Your task to perform on an android device: open app "Mercado Libre" (install if not already installed) and enter user name: "tolerating@yahoo.com" and password: "Kepler" Image 0: 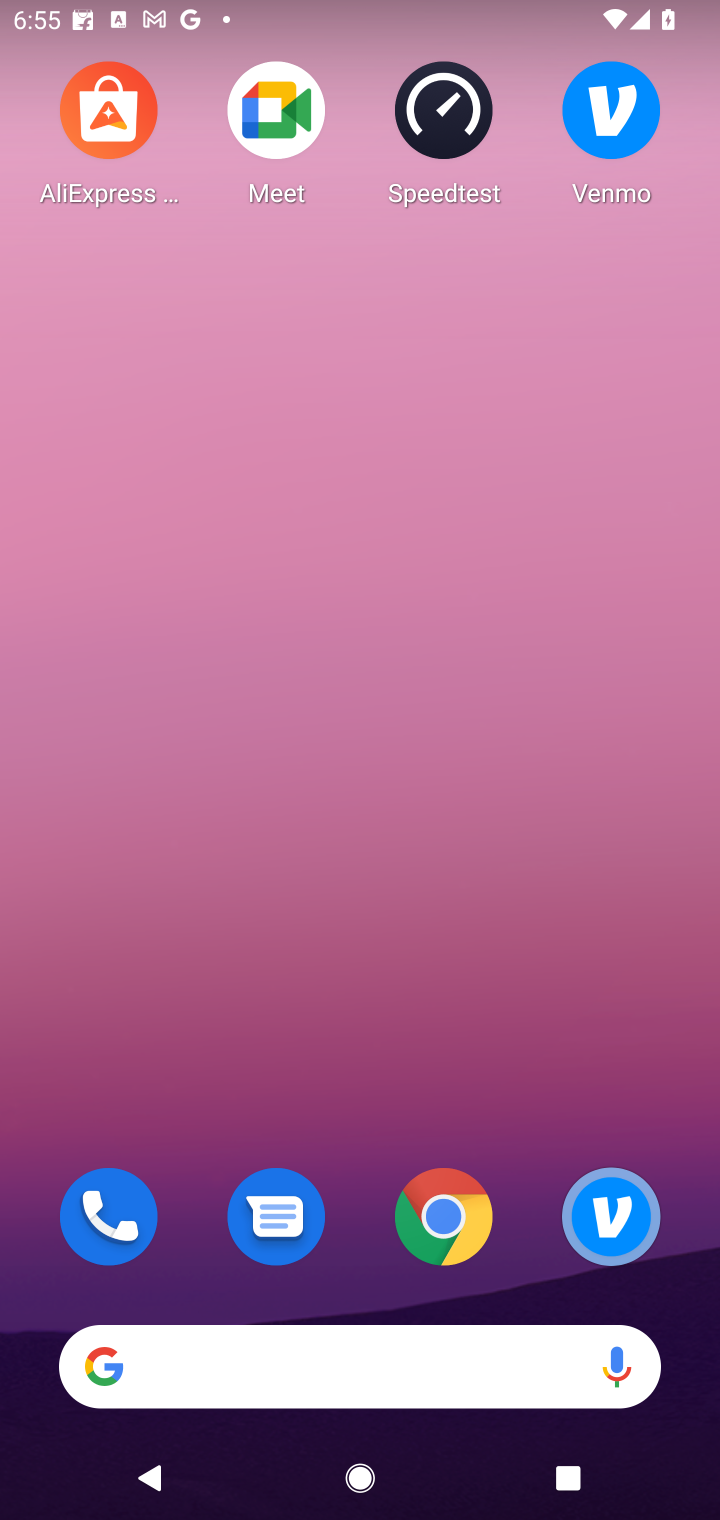
Step 0: drag from (323, 1057) to (380, 293)
Your task to perform on an android device: open app "Mercado Libre" (install if not already installed) and enter user name: "tolerating@yahoo.com" and password: "Kepler" Image 1: 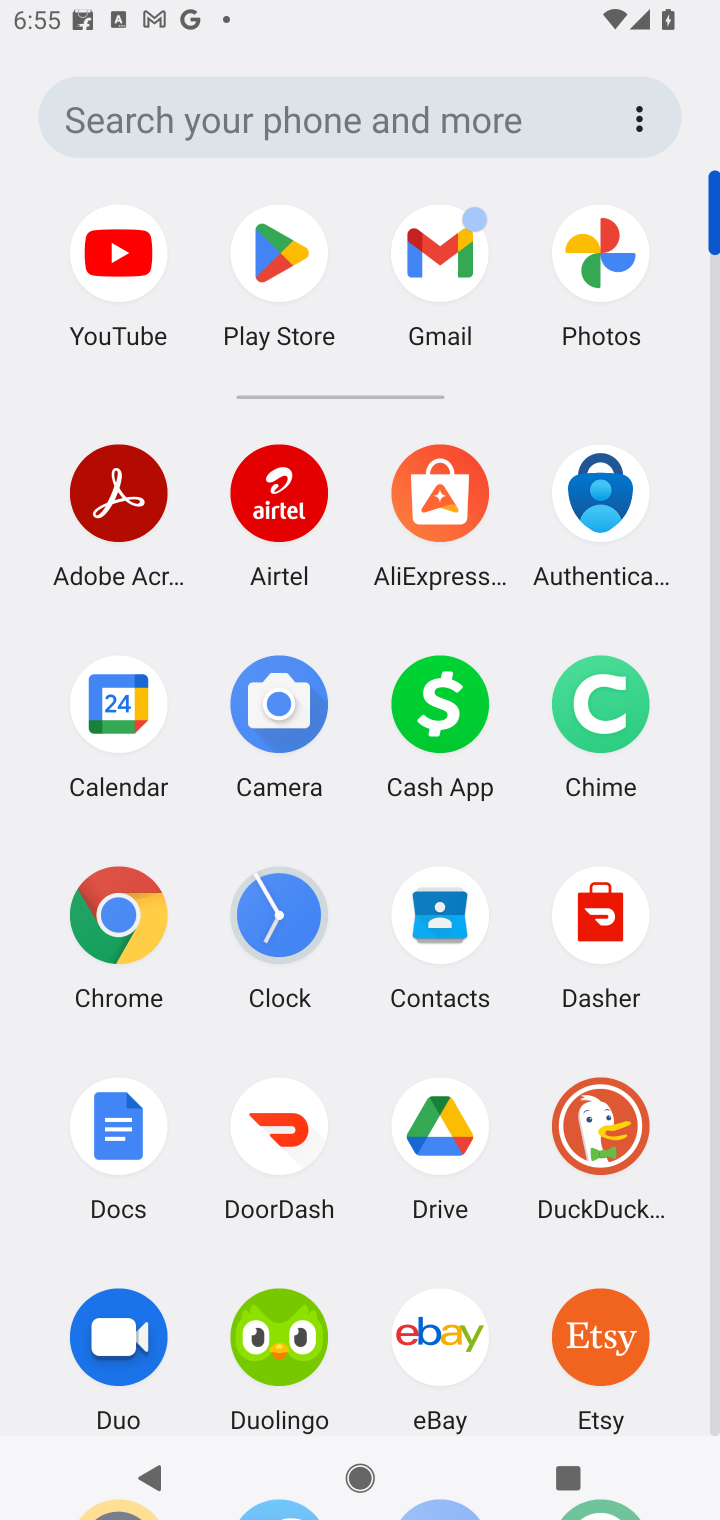
Step 1: click (272, 245)
Your task to perform on an android device: open app "Mercado Libre" (install if not already installed) and enter user name: "tolerating@yahoo.com" and password: "Kepler" Image 2: 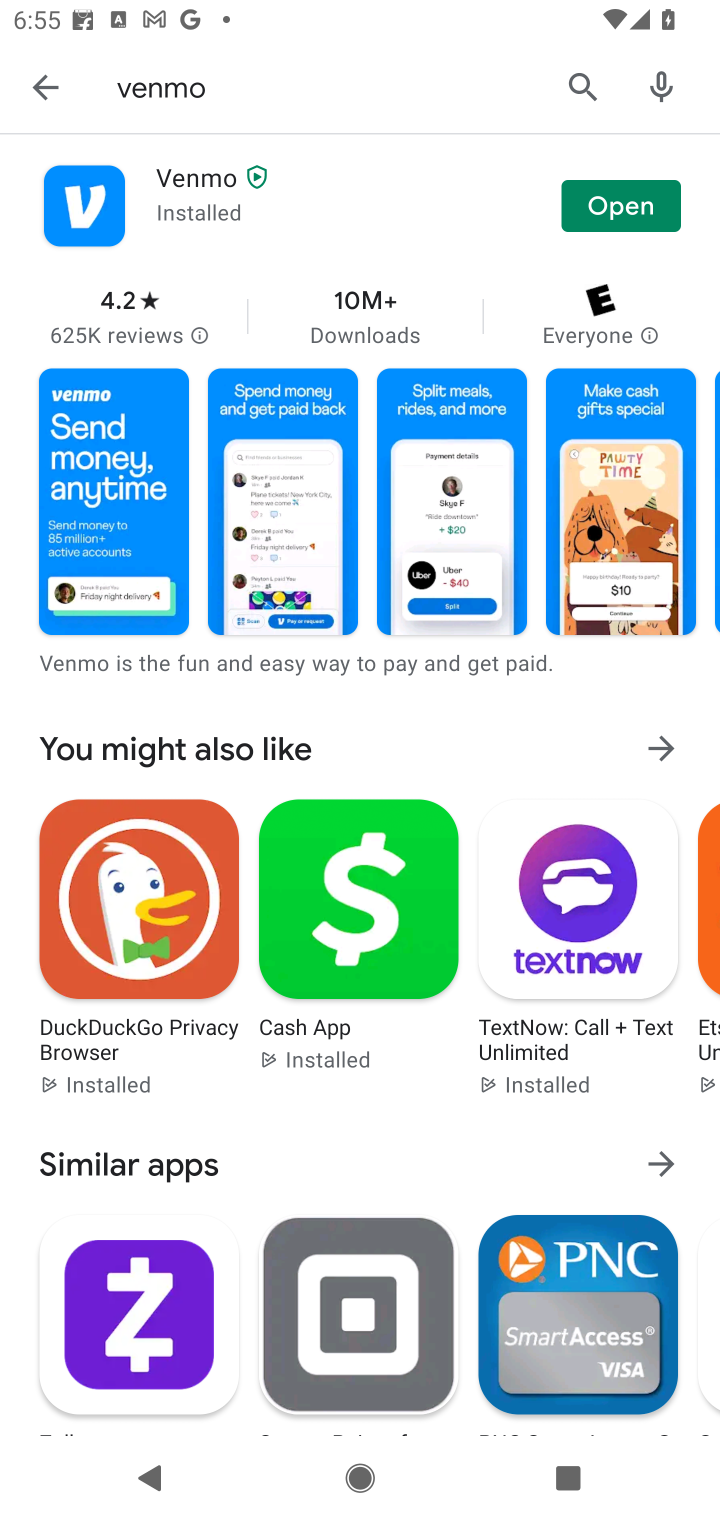
Step 2: click (584, 81)
Your task to perform on an android device: open app "Mercado Libre" (install if not already installed) and enter user name: "tolerating@yahoo.com" and password: "Kepler" Image 3: 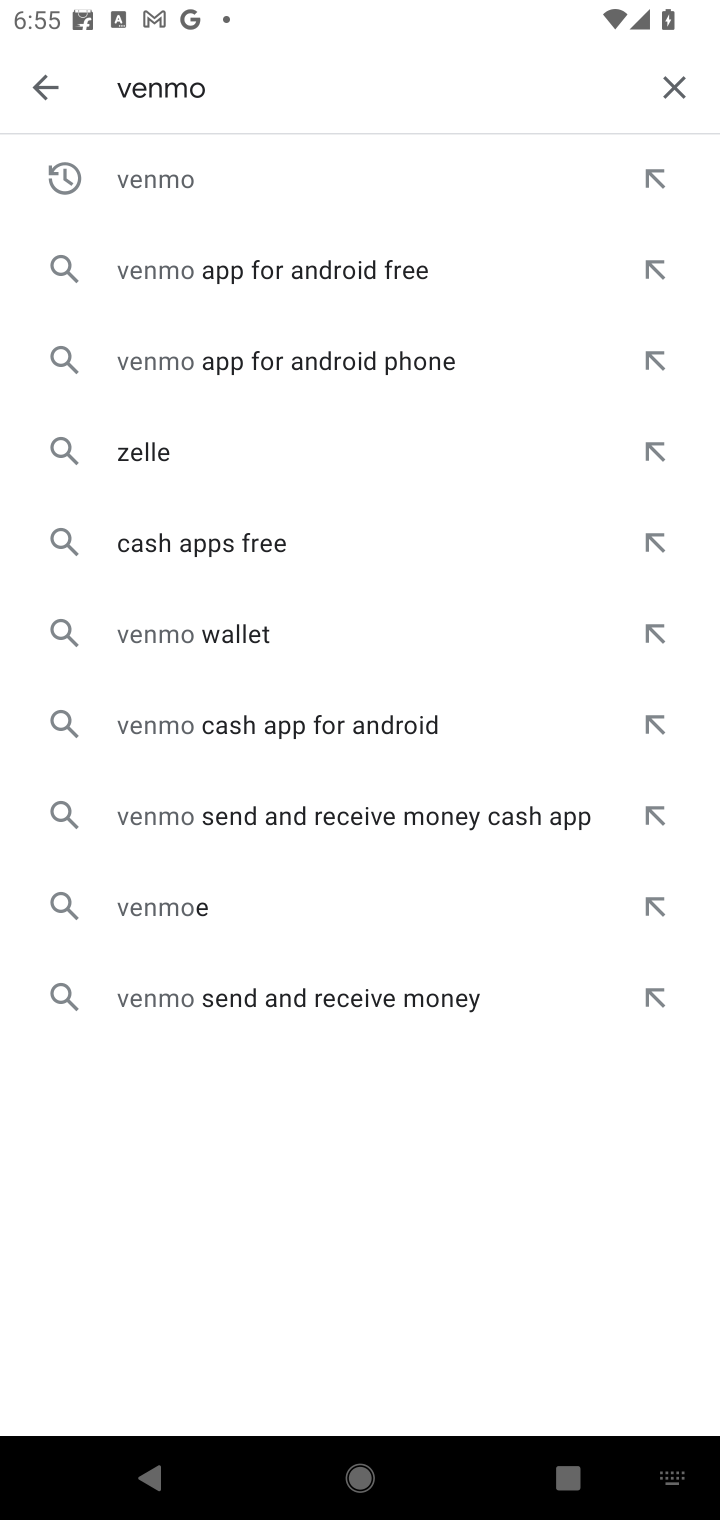
Step 3: click (667, 93)
Your task to perform on an android device: open app "Mercado Libre" (install if not already installed) and enter user name: "tolerating@yahoo.com" and password: "Kepler" Image 4: 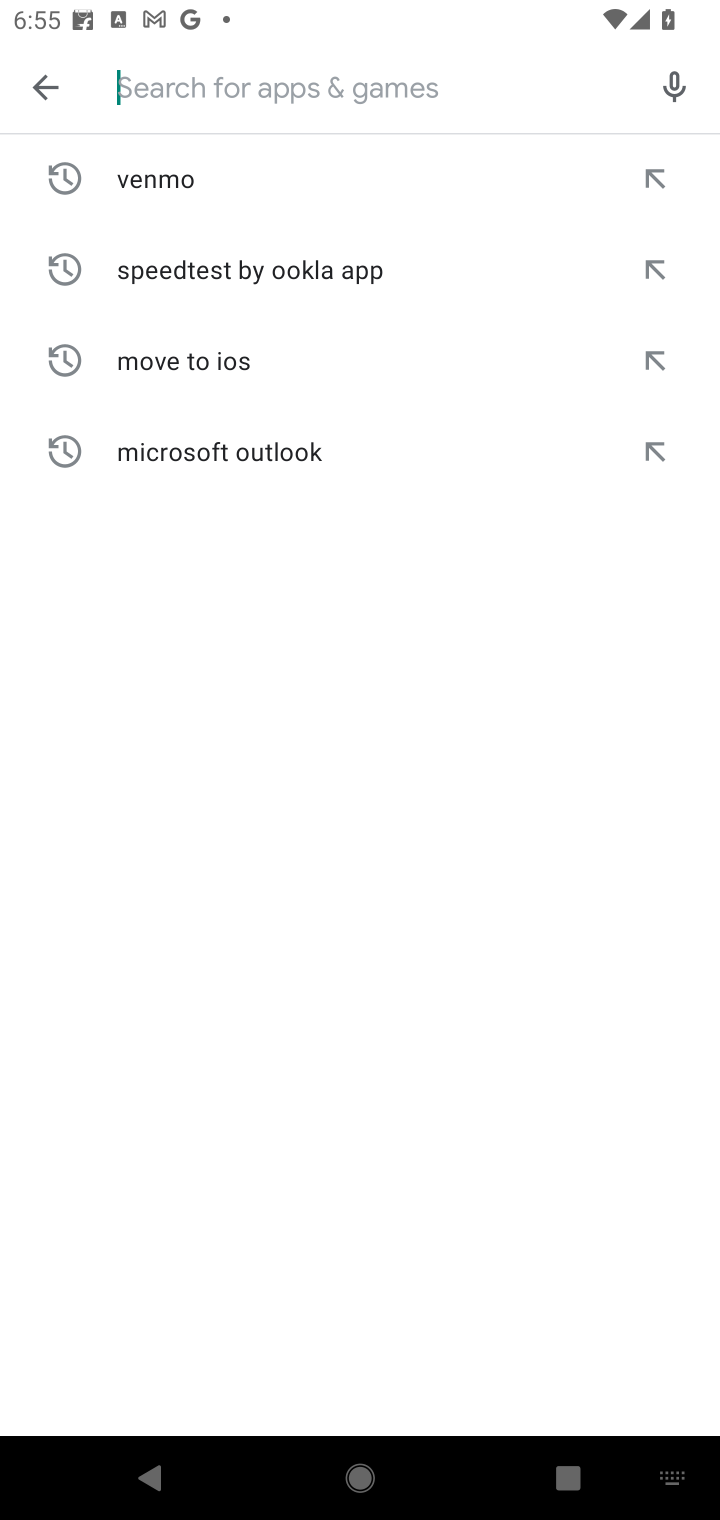
Step 4: type "Mercado Libre"
Your task to perform on an android device: open app "Mercado Libre" (install if not already installed) and enter user name: "tolerating@yahoo.com" and password: "Kepler" Image 5: 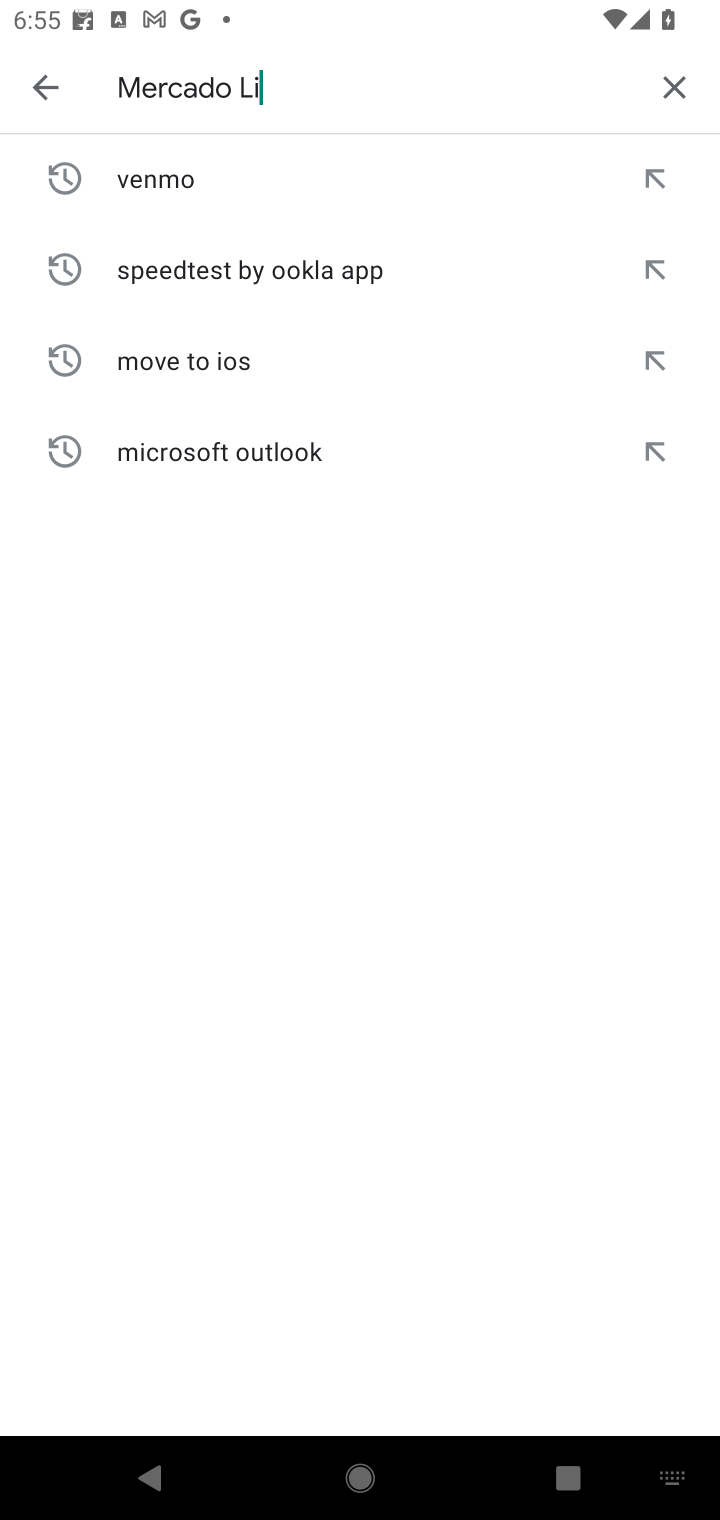
Step 5: type ""
Your task to perform on an android device: open app "Mercado Libre" (install if not already installed) and enter user name: "tolerating@yahoo.com" and password: "Kepler" Image 6: 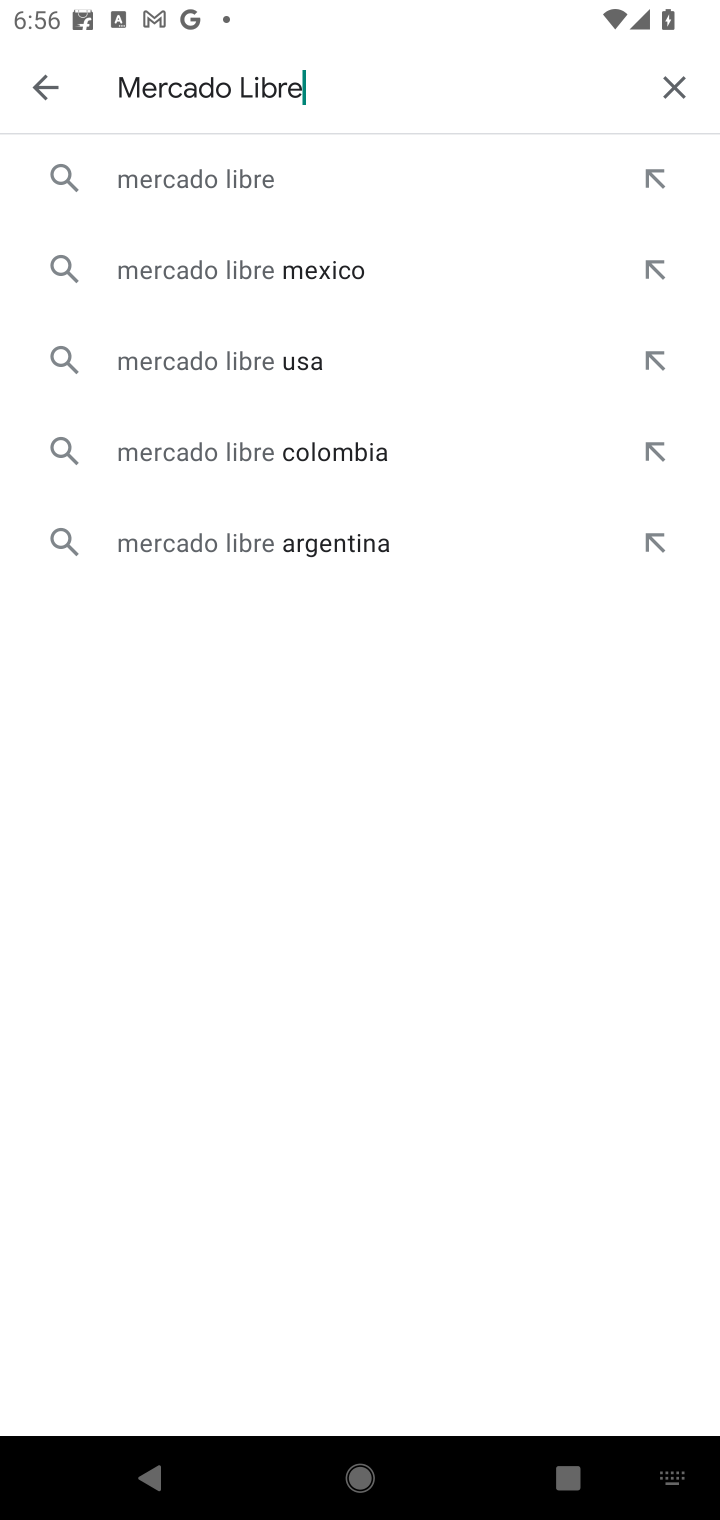
Step 6: click (252, 201)
Your task to perform on an android device: open app "Mercado Libre" (install if not already installed) and enter user name: "tolerating@yahoo.com" and password: "Kepler" Image 7: 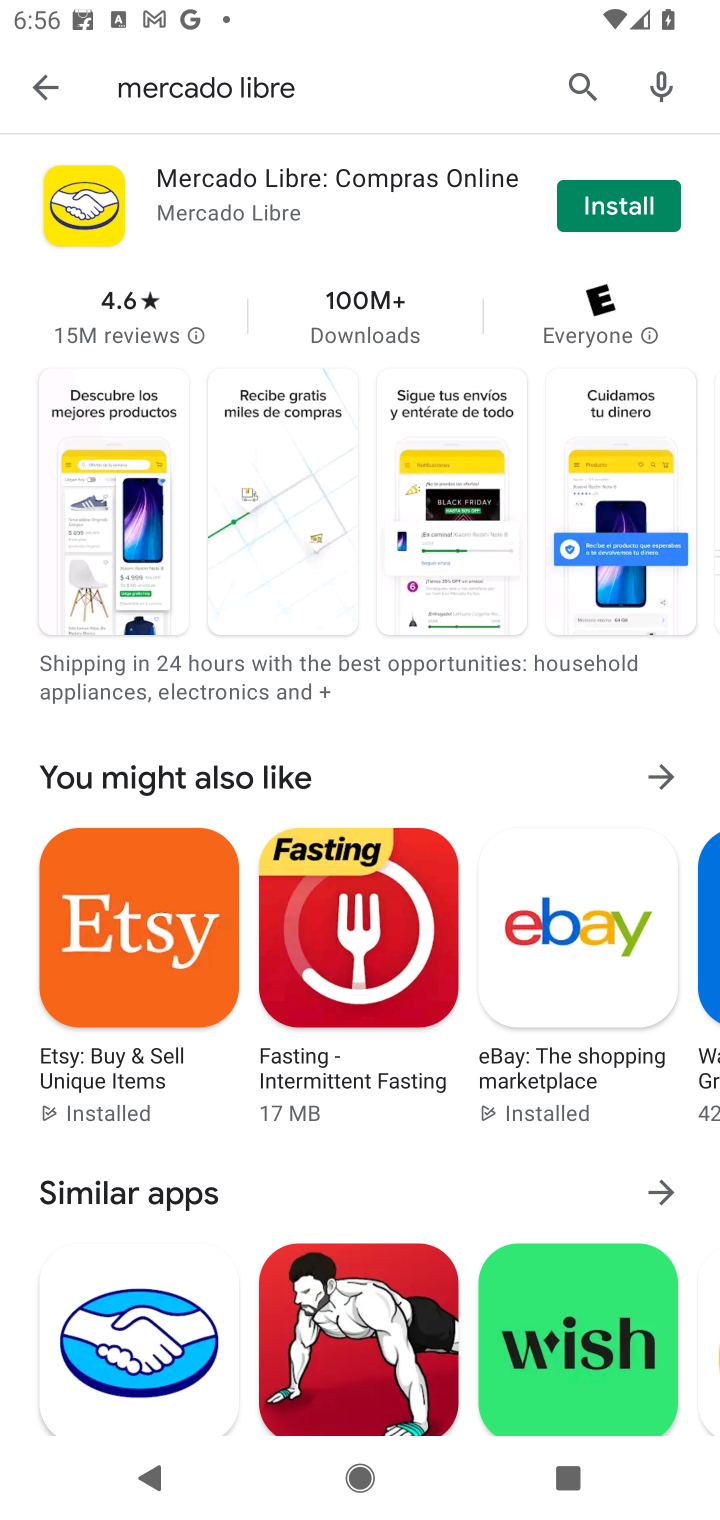
Step 7: click (633, 214)
Your task to perform on an android device: open app "Mercado Libre" (install if not already installed) and enter user name: "tolerating@yahoo.com" and password: "Kepler" Image 8: 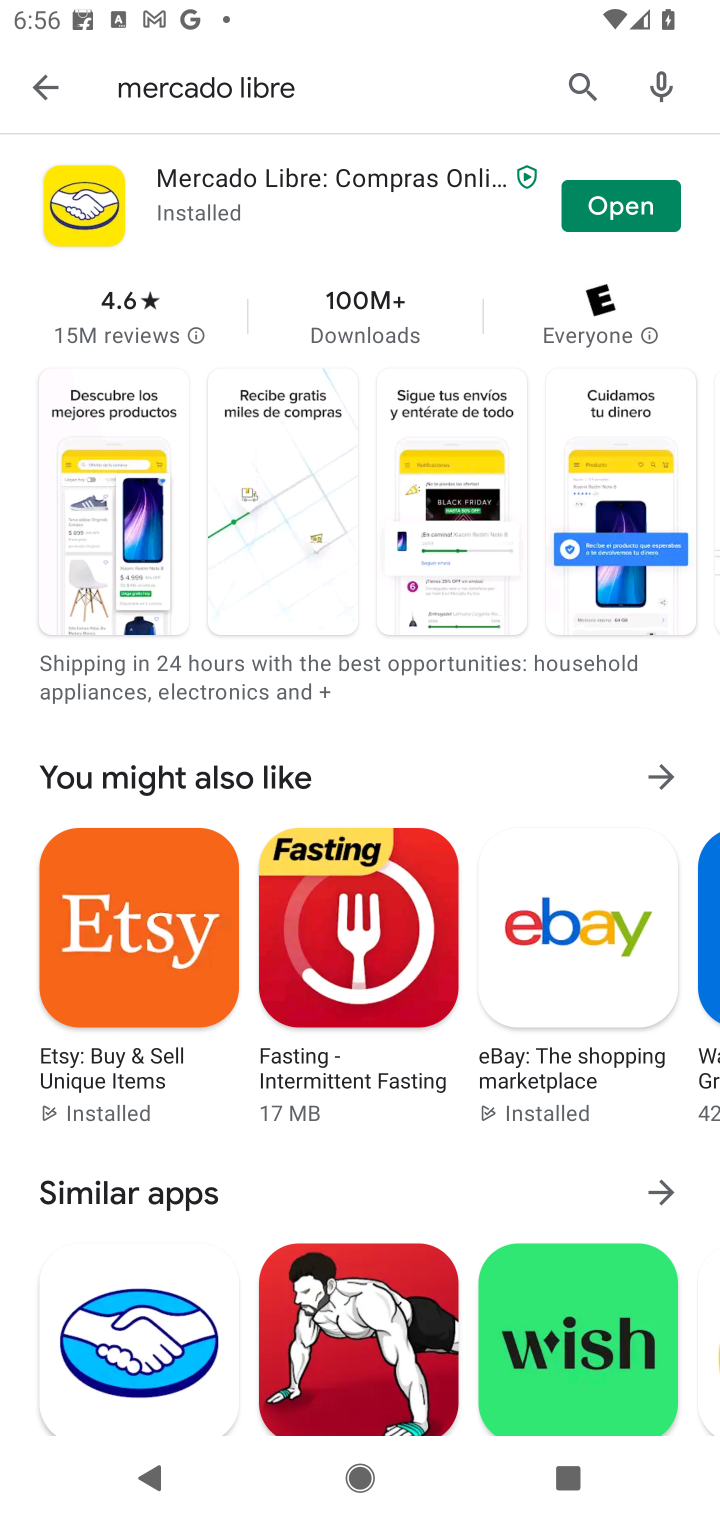
Step 8: click (633, 214)
Your task to perform on an android device: open app "Mercado Libre" (install if not already installed) and enter user name: "tolerating@yahoo.com" and password: "Kepler" Image 9: 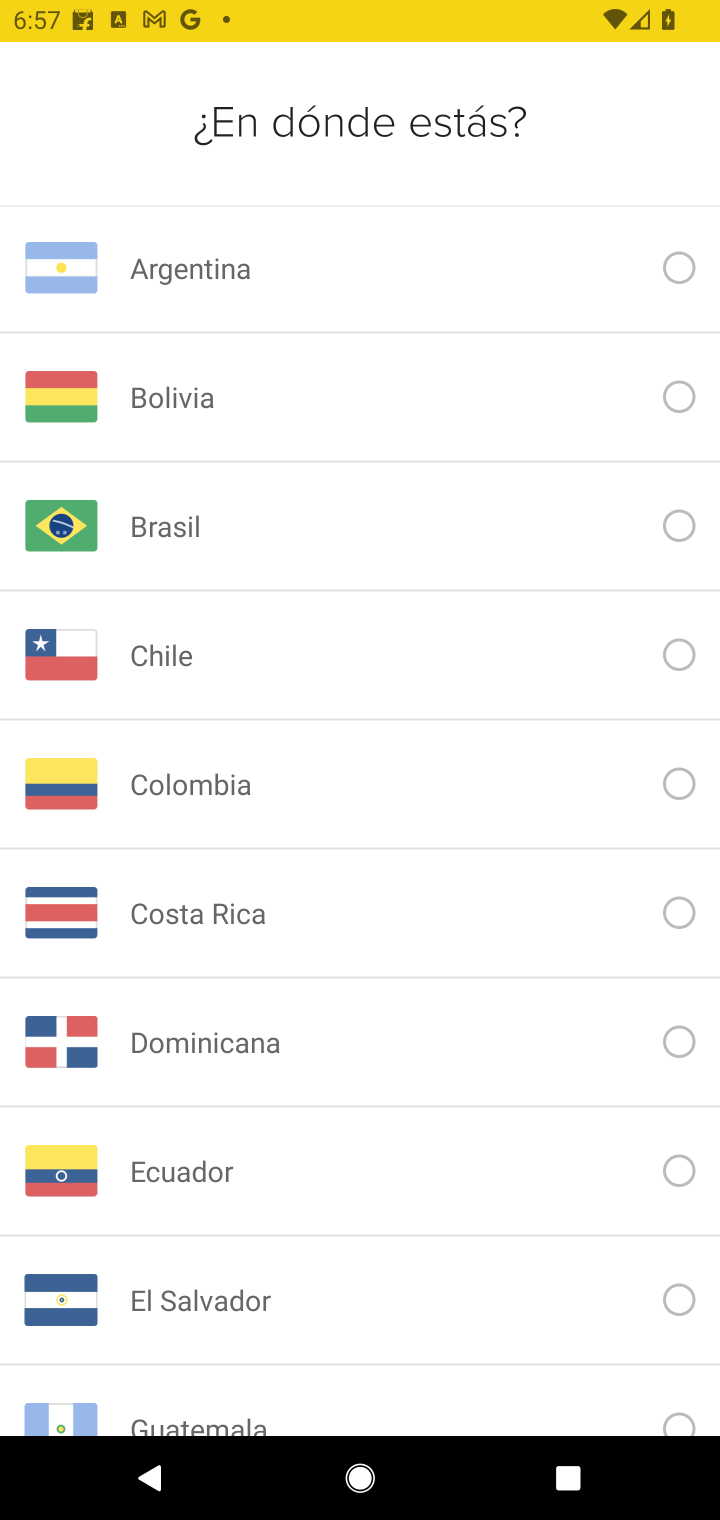
Step 9: task complete